Your task to perform on an android device: allow cookies in the chrome app Image 0: 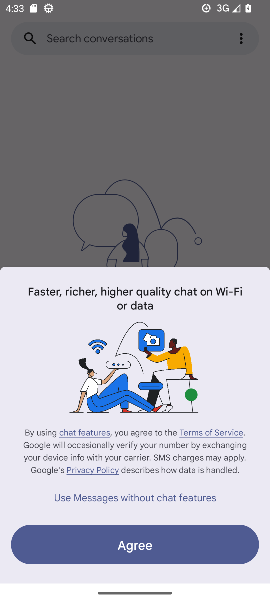
Step 0: drag from (178, 490) to (111, 109)
Your task to perform on an android device: allow cookies in the chrome app Image 1: 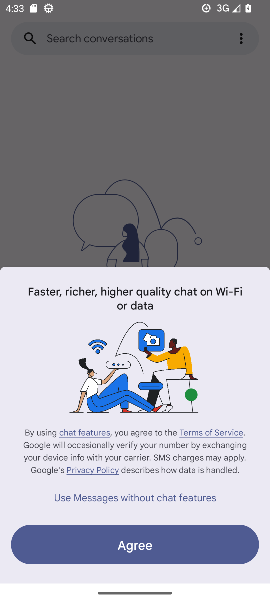
Step 1: press back button
Your task to perform on an android device: allow cookies in the chrome app Image 2: 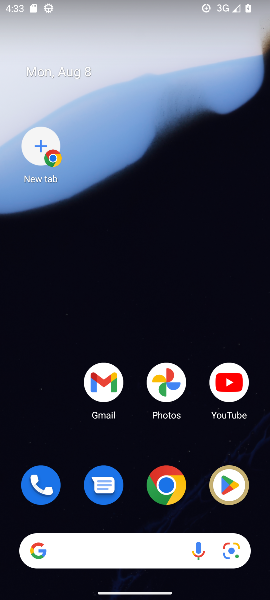
Step 2: drag from (115, 470) to (123, 300)
Your task to perform on an android device: allow cookies in the chrome app Image 3: 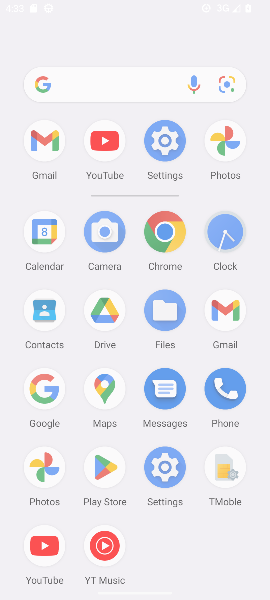
Step 3: drag from (147, 374) to (147, 295)
Your task to perform on an android device: allow cookies in the chrome app Image 4: 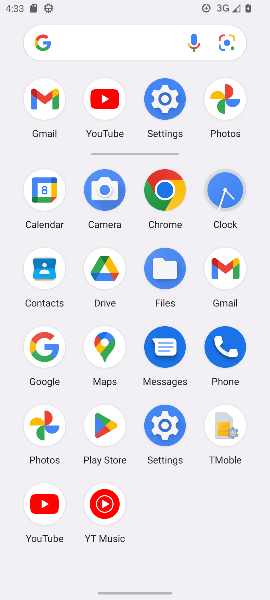
Step 4: drag from (147, 432) to (147, 239)
Your task to perform on an android device: allow cookies in the chrome app Image 5: 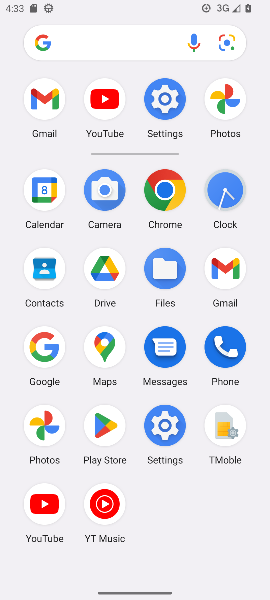
Step 5: click (153, 200)
Your task to perform on an android device: allow cookies in the chrome app Image 6: 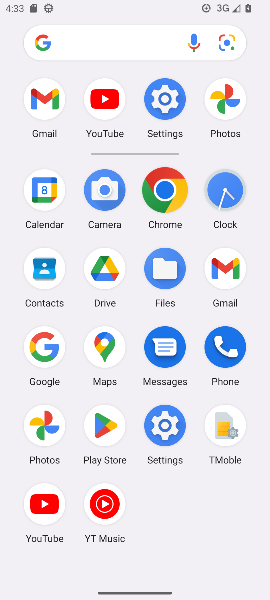
Step 6: click (168, 189)
Your task to perform on an android device: allow cookies in the chrome app Image 7: 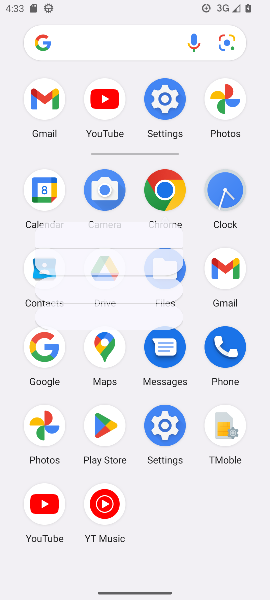
Step 7: click (168, 189)
Your task to perform on an android device: allow cookies in the chrome app Image 8: 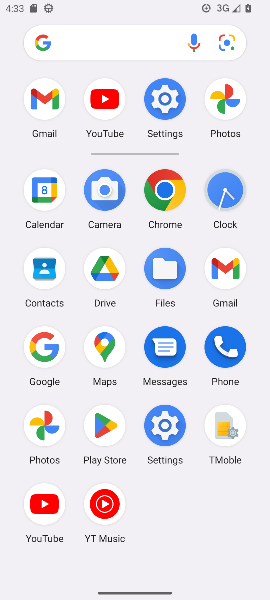
Step 8: click (168, 189)
Your task to perform on an android device: allow cookies in the chrome app Image 9: 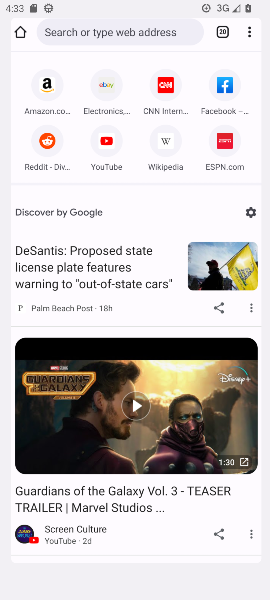
Step 9: click (176, 184)
Your task to perform on an android device: allow cookies in the chrome app Image 10: 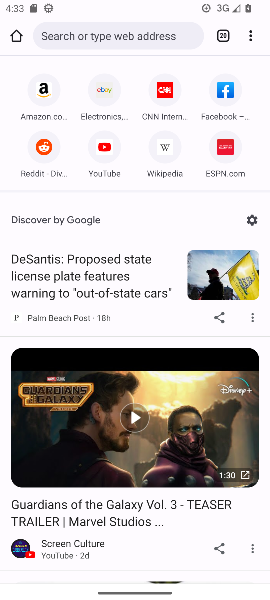
Step 10: drag from (248, 41) to (132, 321)
Your task to perform on an android device: allow cookies in the chrome app Image 11: 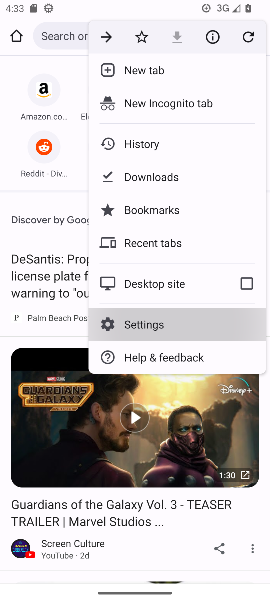
Step 11: click (132, 322)
Your task to perform on an android device: allow cookies in the chrome app Image 12: 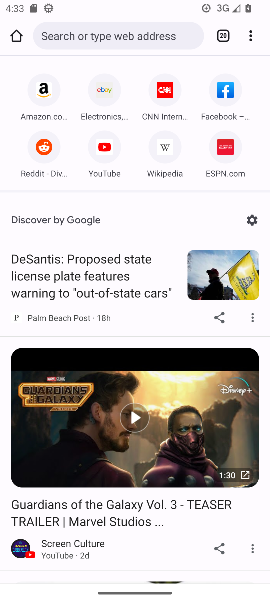
Step 12: click (132, 322)
Your task to perform on an android device: allow cookies in the chrome app Image 13: 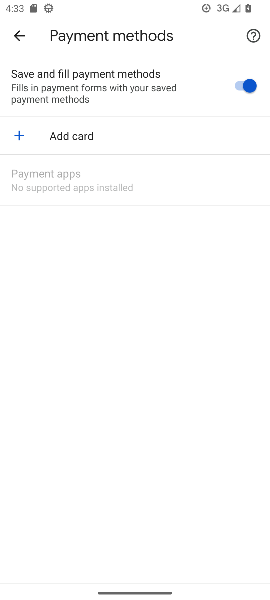
Step 13: click (19, 32)
Your task to perform on an android device: allow cookies in the chrome app Image 14: 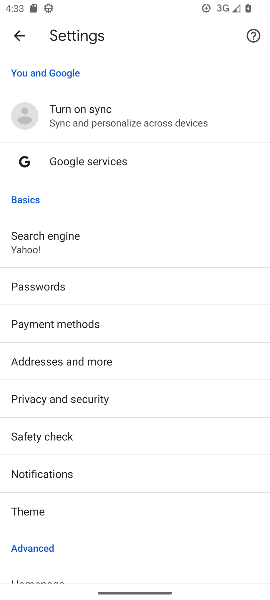
Step 14: drag from (85, 472) to (95, 137)
Your task to perform on an android device: allow cookies in the chrome app Image 15: 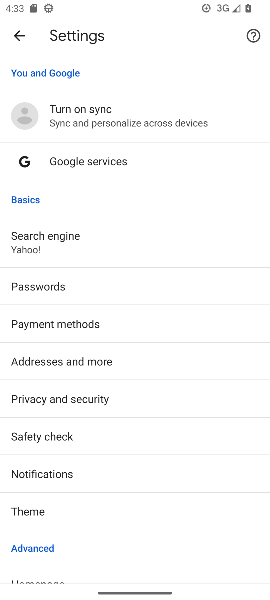
Step 15: drag from (127, 381) to (127, 183)
Your task to perform on an android device: allow cookies in the chrome app Image 16: 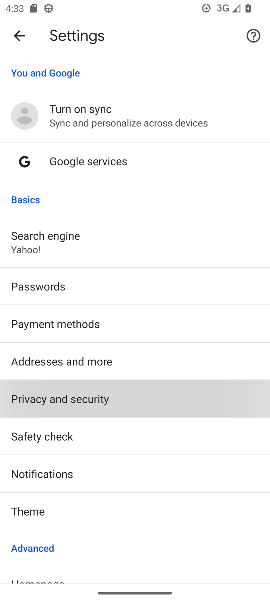
Step 16: drag from (141, 398) to (128, 181)
Your task to perform on an android device: allow cookies in the chrome app Image 17: 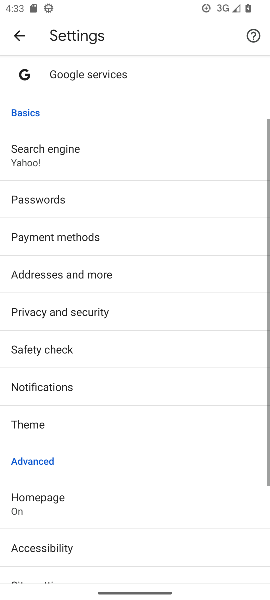
Step 17: drag from (116, 426) to (116, 264)
Your task to perform on an android device: allow cookies in the chrome app Image 18: 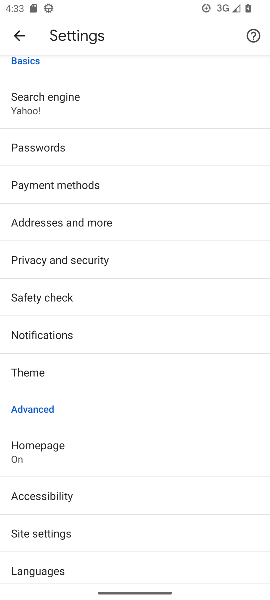
Step 18: click (32, 531)
Your task to perform on an android device: allow cookies in the chrome app Image 19: 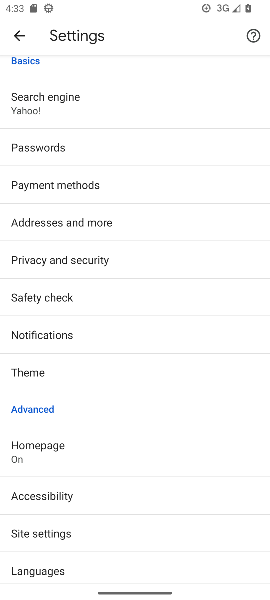
Step 19: click (32, 531)
Your task to perform on an android device: allow cookies in the chrome app Image 20: 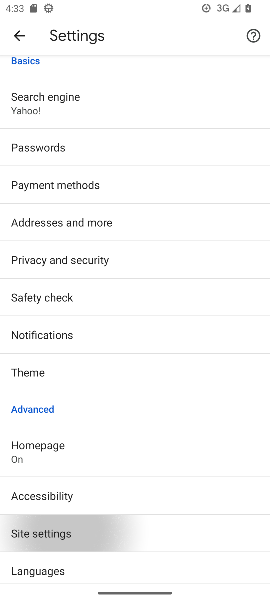
Step 20: click (32, 531)
Your task to perform on an android device: allow cookies in the chrome app Image 21: 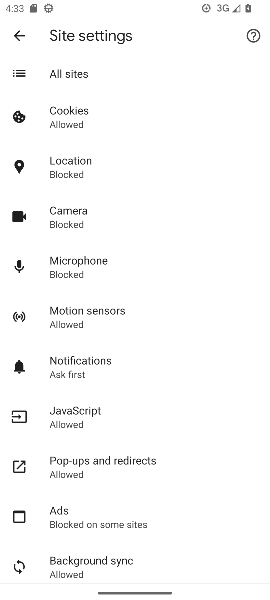
Step 21: click (59, 117)
Your task to perform on an android device: allow cookies in the chrome app Image 22: 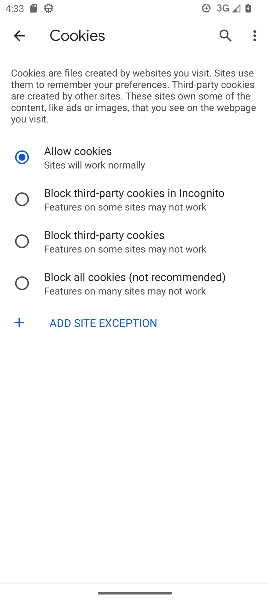
Step 22: task complete